Your task to perform on an android device: turn on the 24-hour format for clock Image 0: 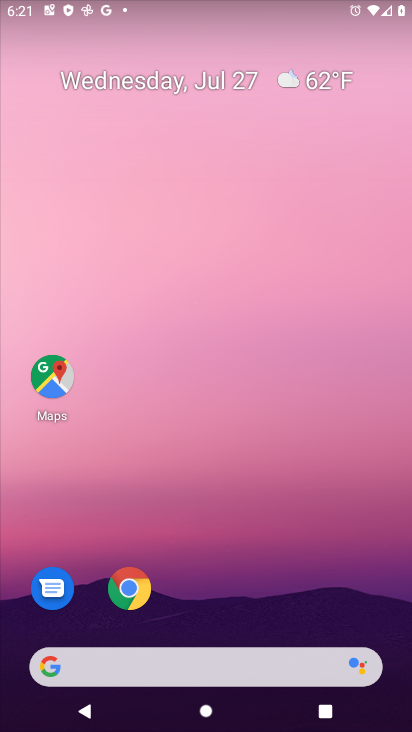
Step 0: drag from (180, 587) to (202, 129)
Your task to perform on an android device: turn on the 24-hour format for clock Image 1: 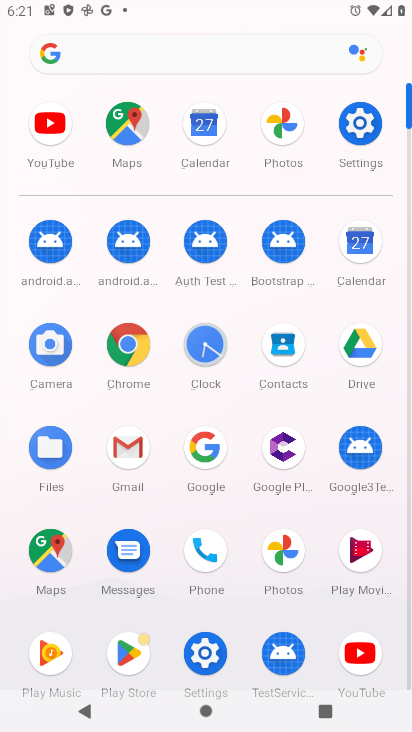
Step 1: click (355, 131)
Your task to perform on an android device: turn on the 24-hour format for clock Image 2: 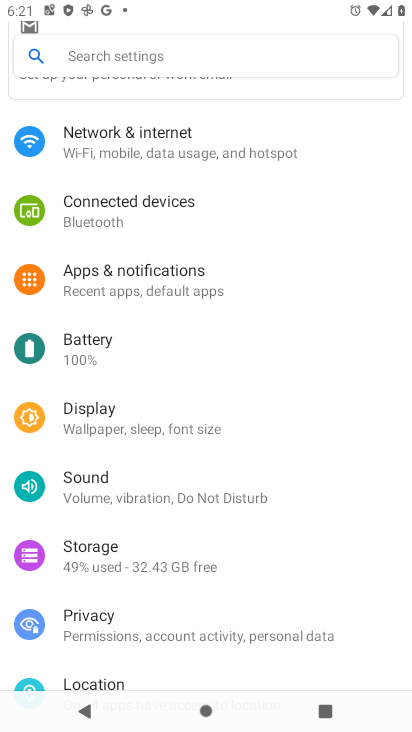
Step 2: drag from (125, 651) to (139, 349)
Your task to perform on an android device: turn on the 24-hour format for clock Image 3: 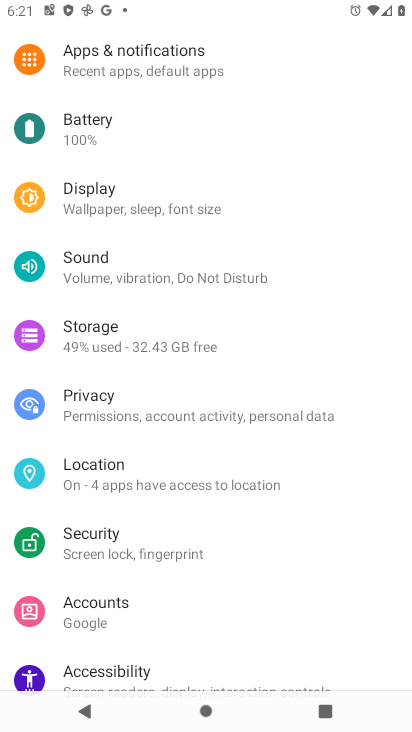
Step 3: drag from (129, 585) to (172, 293)
Your task to perform on an android device: turn on the 24-hour format for clock Image 4: 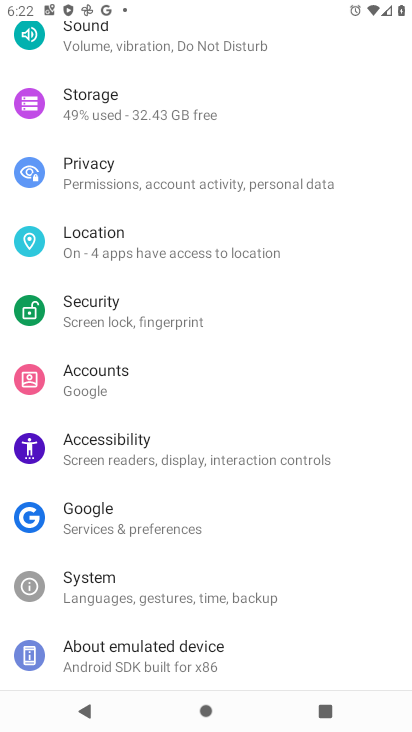
Step 4: press back button
Your task to perform on an android device: turn on the 24-hour format for clock Image 5: 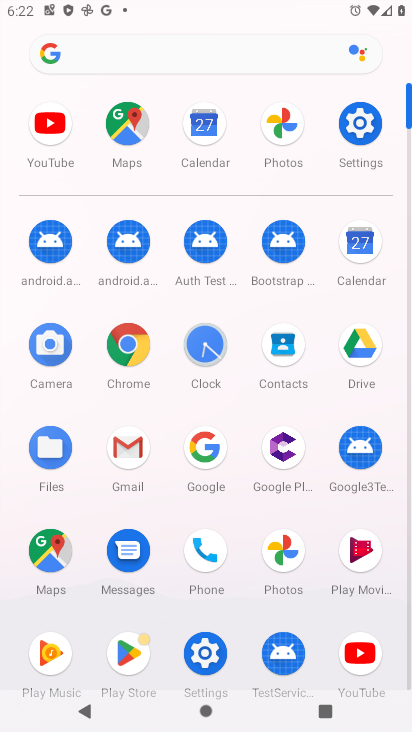
Step 5: click (193, 353)
Your task to perform on an android device: turn on the 24-hour format for clock Image 6: 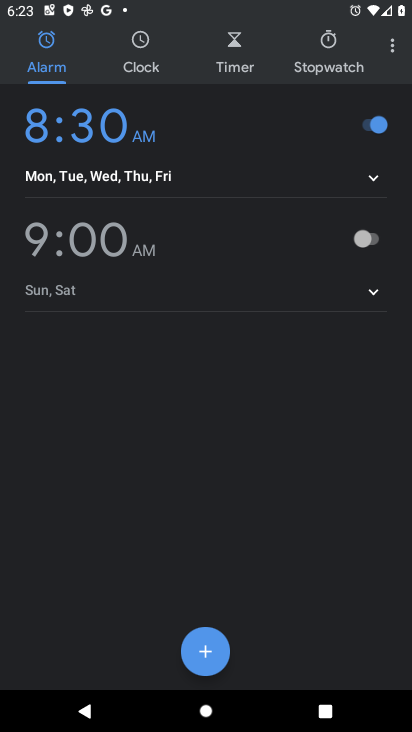
Step 6: click (388, 44)
Your task to perform on an android device: turn on the 24-hour format for clock Image 7: 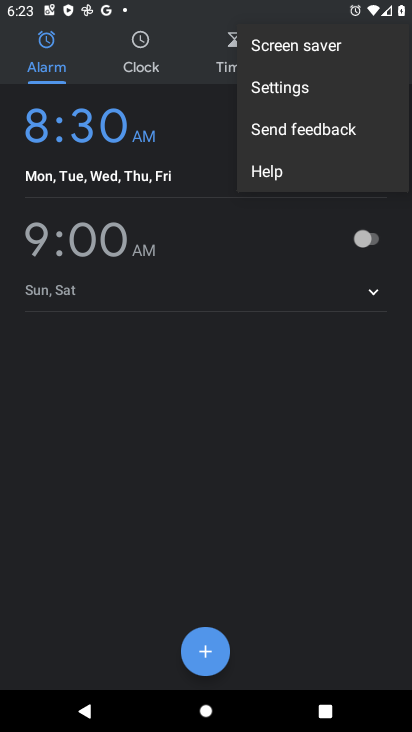
Step 7: click (265, 92)
Your task to perform on an android device: turn on the 24-hour format for clock Image 8: 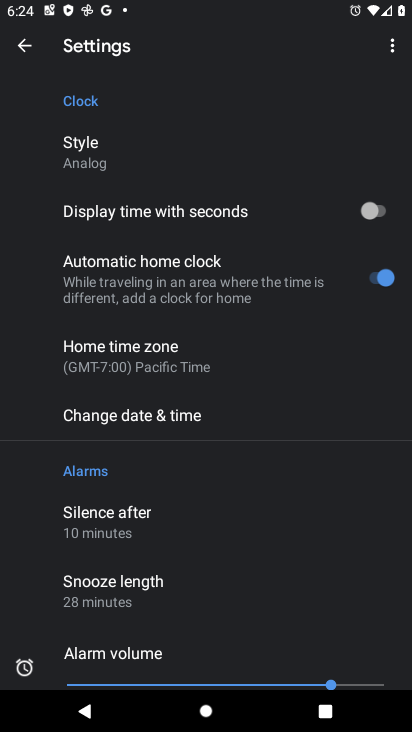
Step 8: click (154, 416)
Your task to perform on an android device: turn on the 24-hour format for clock Image 9: 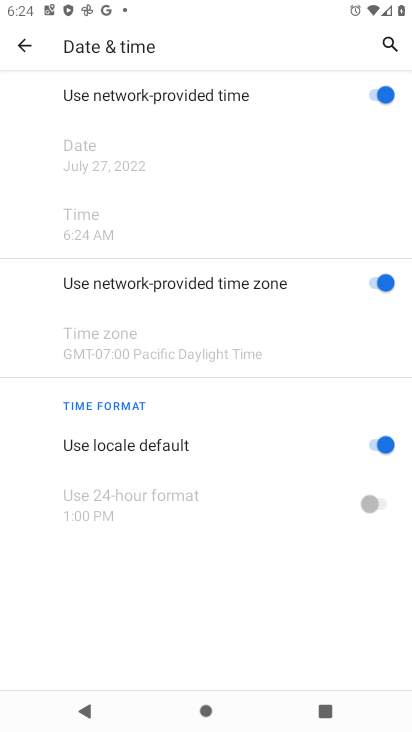
Step 9: click (372, 452)
Your task to perform on an android device: turn on the 24-hour format for clock Image 10: 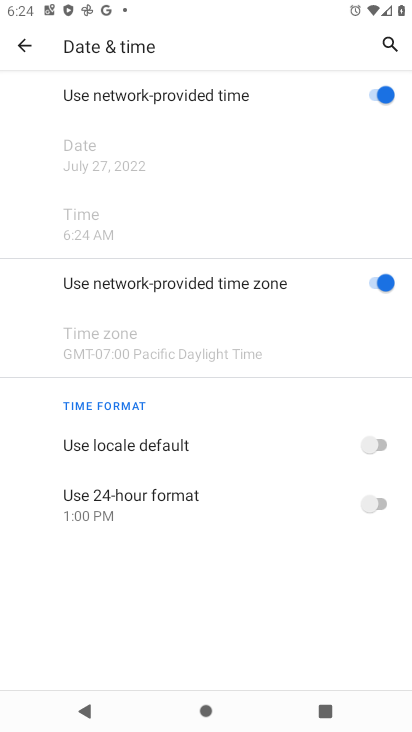
Step 10: click (387, 508)
Your task to perform on an android device: turn on the 24-hour format for clock Image 11: 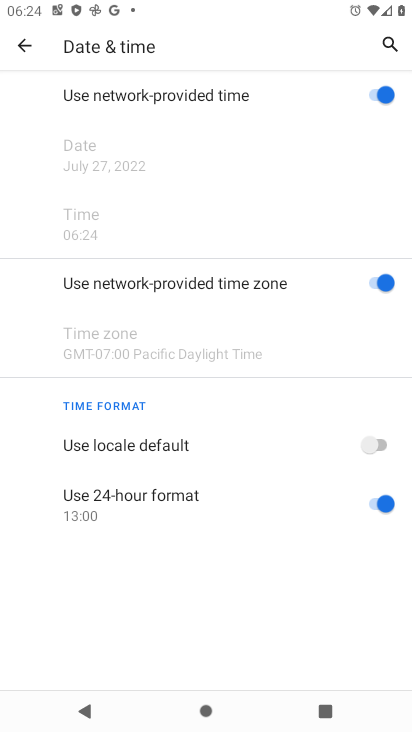
Step 11: task complete